Your task to perform on an android device: read, delete, or share a saved page in the chrome app Image 0: 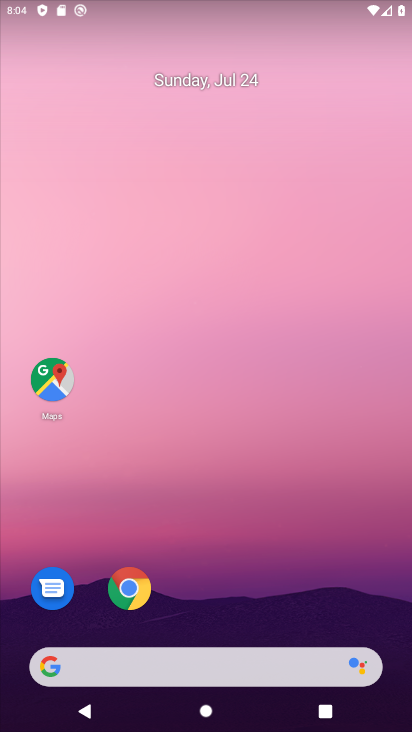
Step 0: click (129, 592)
Your task to perform on an android device: read, delete, or share a saved page in the chrome app Image 1: 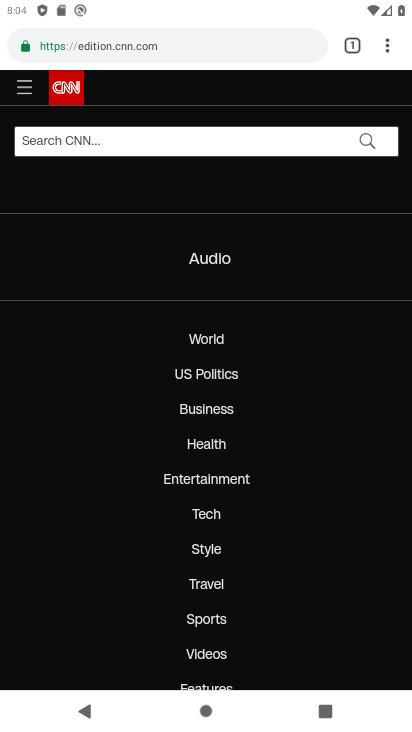
Step 1: click (383, 40)
Your task to perform on an android device: read, delete, or share a saved page in the chrome app Image 2: 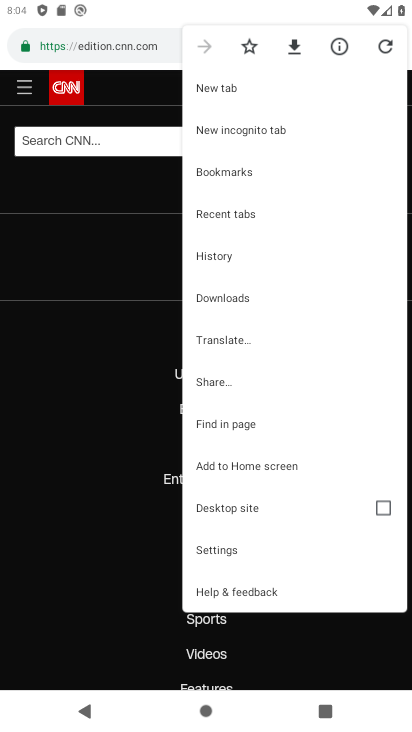
Step 2: click (235, 307)
Your task to perform on an android device: read, delete, or share a saved page in the chrome app Image 3: 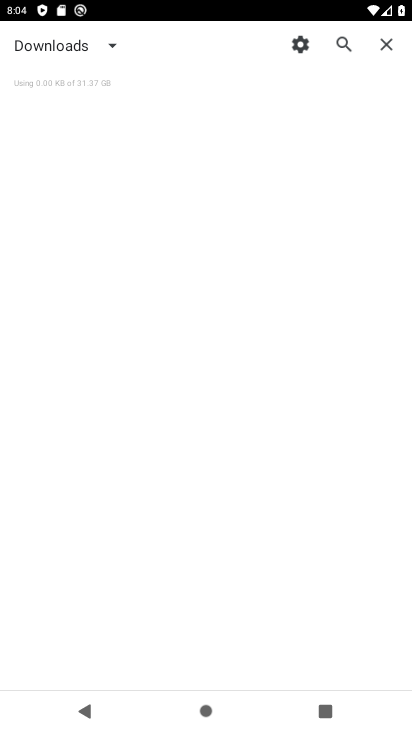
Step 3: click (109, 46)
Your task to perform on an android device: read, delete, or share a saved page in the chrome app Image 4: 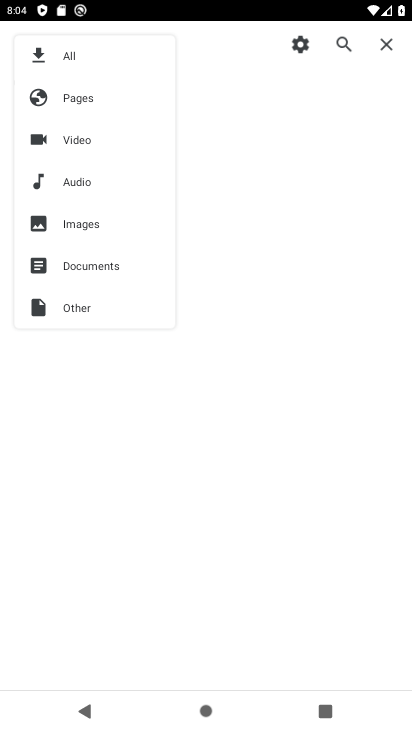
Step 4: click (65, 96)
Your task to perform on an android device: read, delete, or share a saved page in the chrome app Image 5: 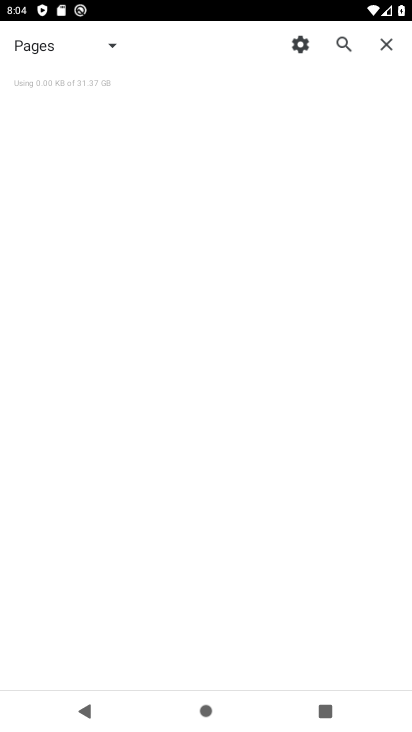
Step 5: task complete